Your task to perform on an android device: Search for seafood restaurants on Google Maps Image 0: 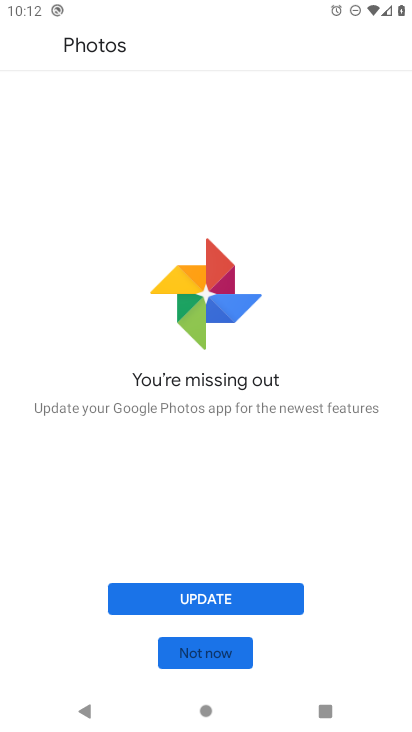
Step 0: press home button
Your task to perform on an android device: Search for seafood restaurants on Google Maps Image 1: 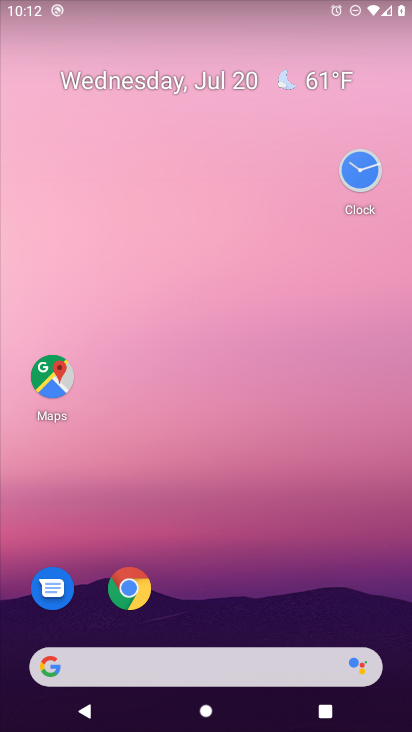
Step 1: click (60, 389)
Your task to perform on an android device: Search for seafood restaurants on Google Maps Image 2: 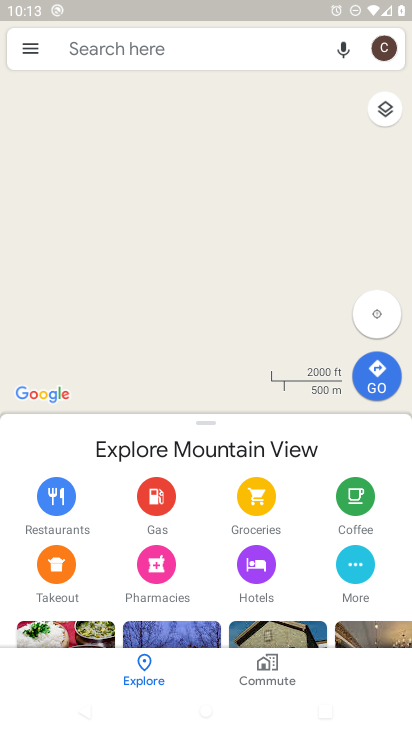
Step 2: click (80, 50)
Your task to perform on an android device: Search for seafood restaurants on Google Maps Image 3: 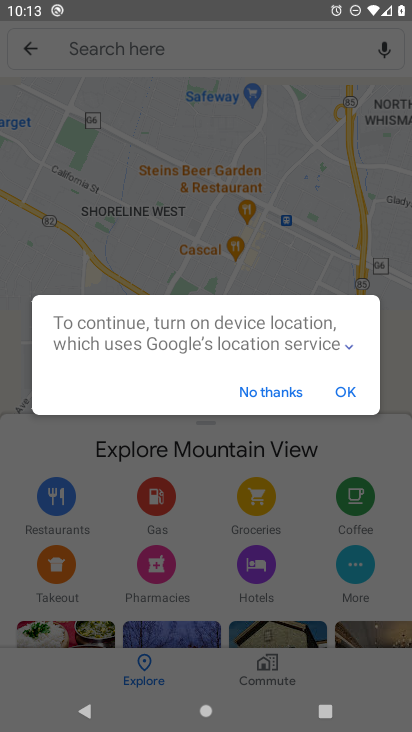
Step 3: click (340, 396)
Your task to perform on an android device: Search for seafood restaurants on Google Maps Image 4: 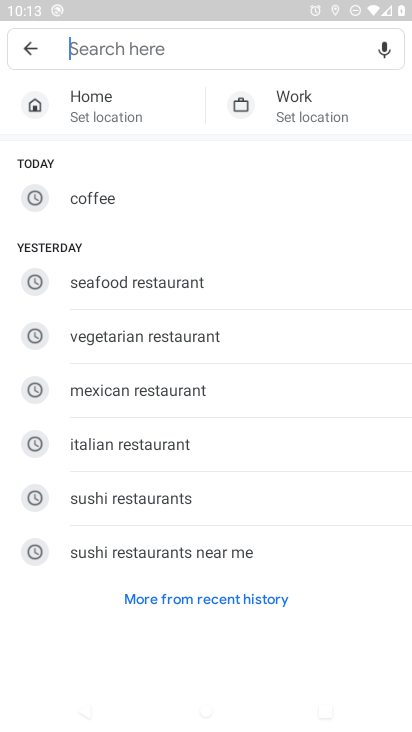
Step 4: click (100, 288)
Your task to perform on an android device: Search for seafood restaurants on Google Maps Image 5: 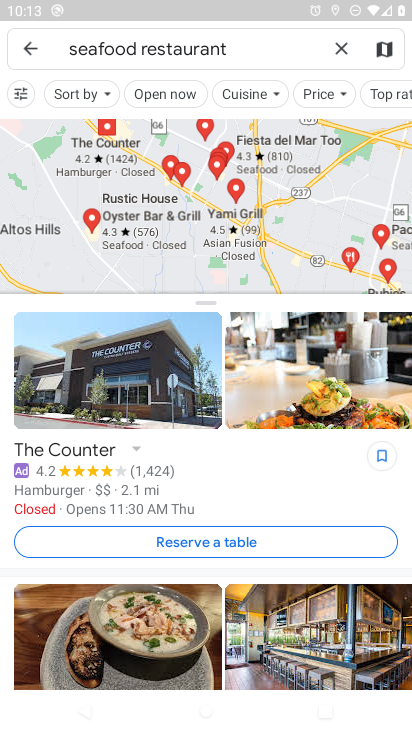
Step 5: task complete